Your task to perform on an android device: Show me popular videos on Youtube Image 0: 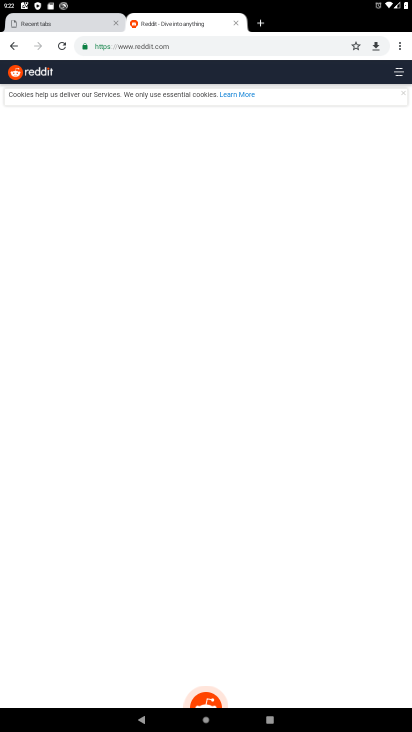
Step 0: press home button
Your task to perform on an android device: Show me popular videos on Youtube Image 1: 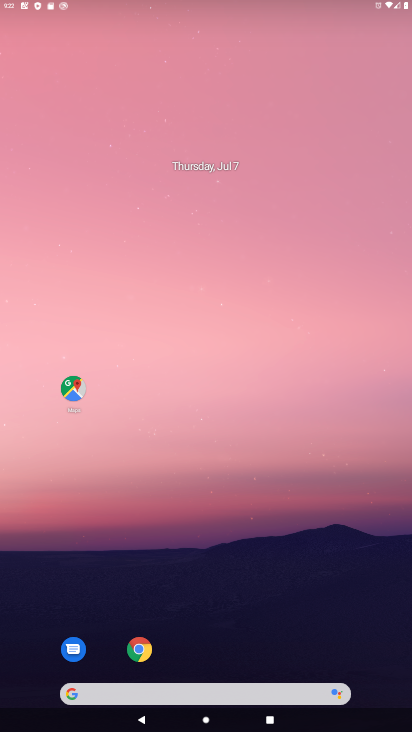
Step 1: drag from (244, 724) to (349, 103)
Your task to perform on an android device: Show me popular videos on Youtube Image 2: 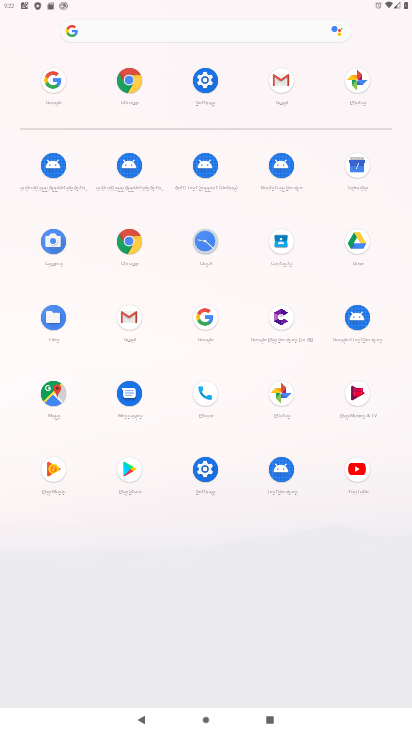
Step 2: click (363, 472)
Your task to perform on an android device: Show me popular videos on Youtube Image 3: 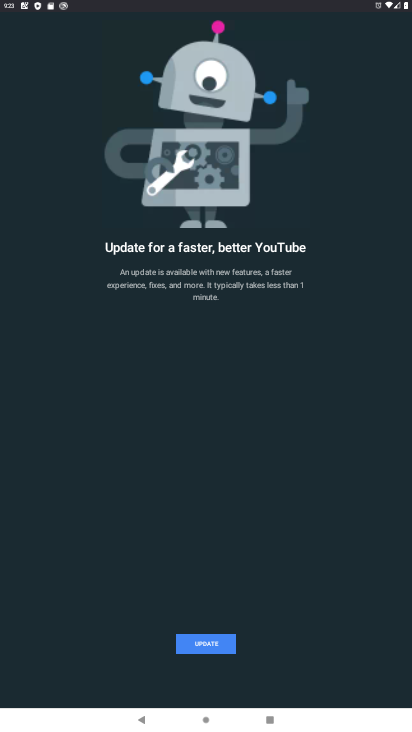
Step 3: click (218, 646)
Your task to perform on an android device: Show me popular videos on Youtube Image 4: 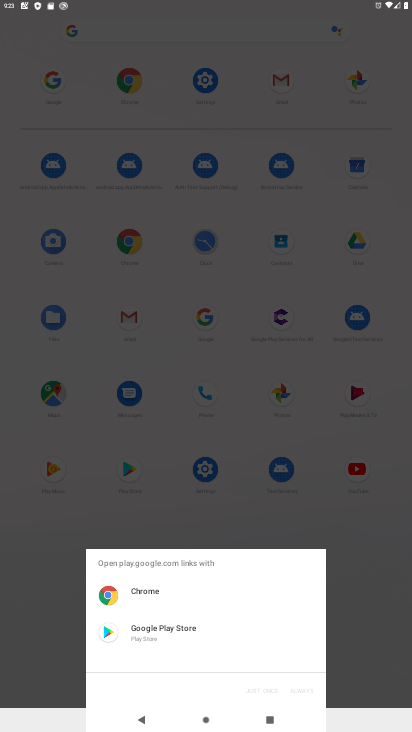
Step 4: click (175, 632)
Your task to perform on an android device: Show me popular videos on Youtube Image 5: 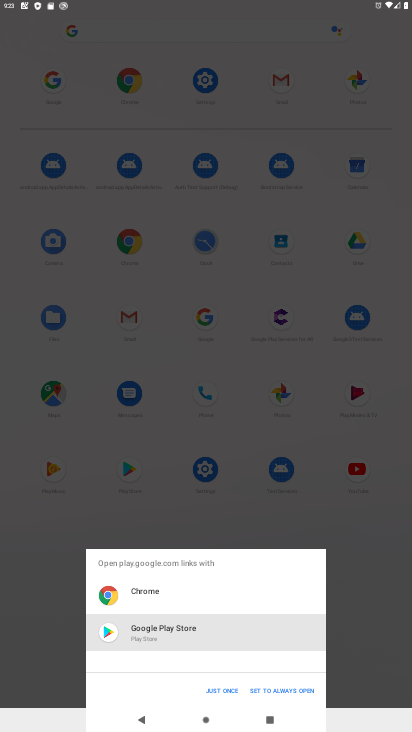
Step 5: click (226, 688)
Your task to perform on an android device: Show me popular videos on Youtube Image 6: 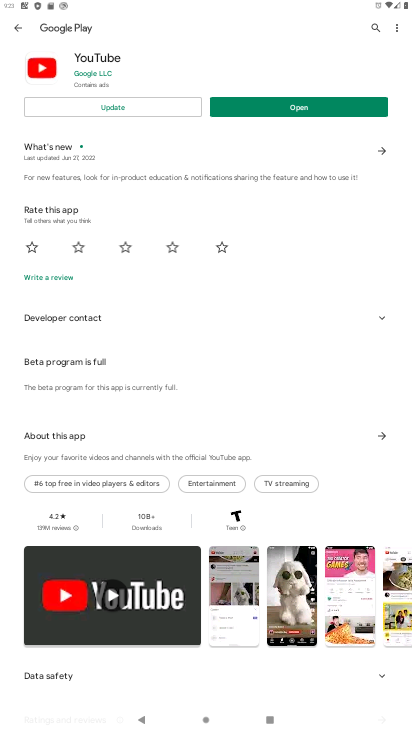
Step 6: click (130, 110)
Your task to perform on an android device: Show me popular videos on Youtube Image 7: 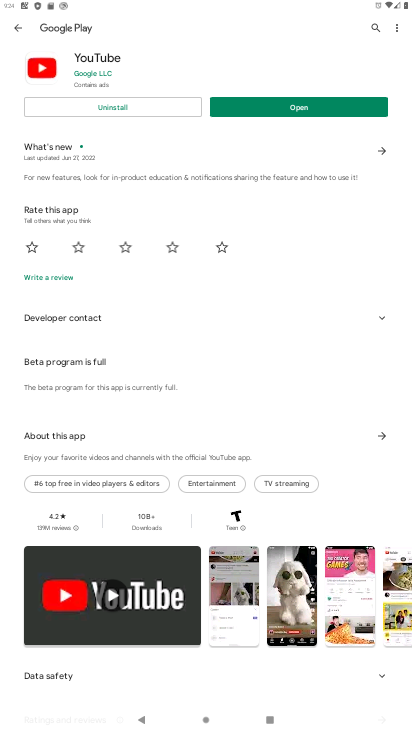
Step 7: click (364, 104)
Your task to perform on an android device: Show me popular videos on Youtube Image 8: 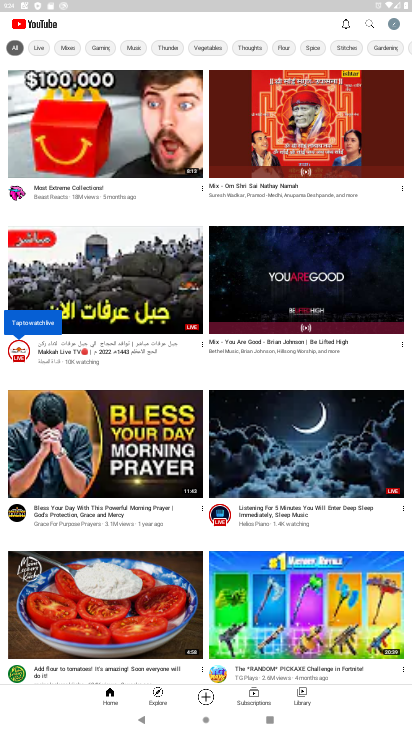
Step 8: task complete